Your task to perform on an android device: Install the Google app Image 0: 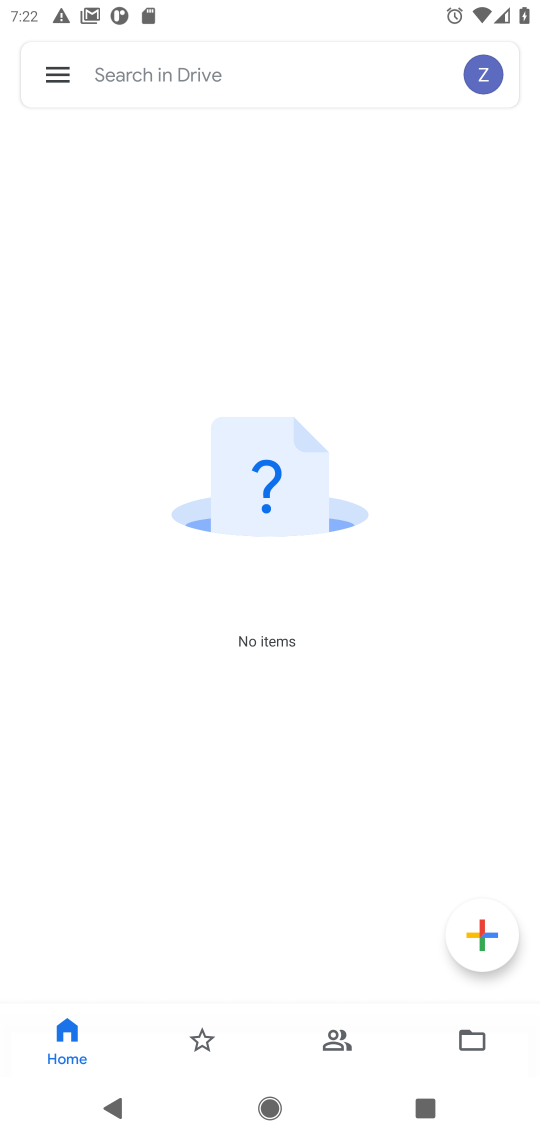
Step 0: press home button
Your task to perform on an android device: Install the Google app Image 1: 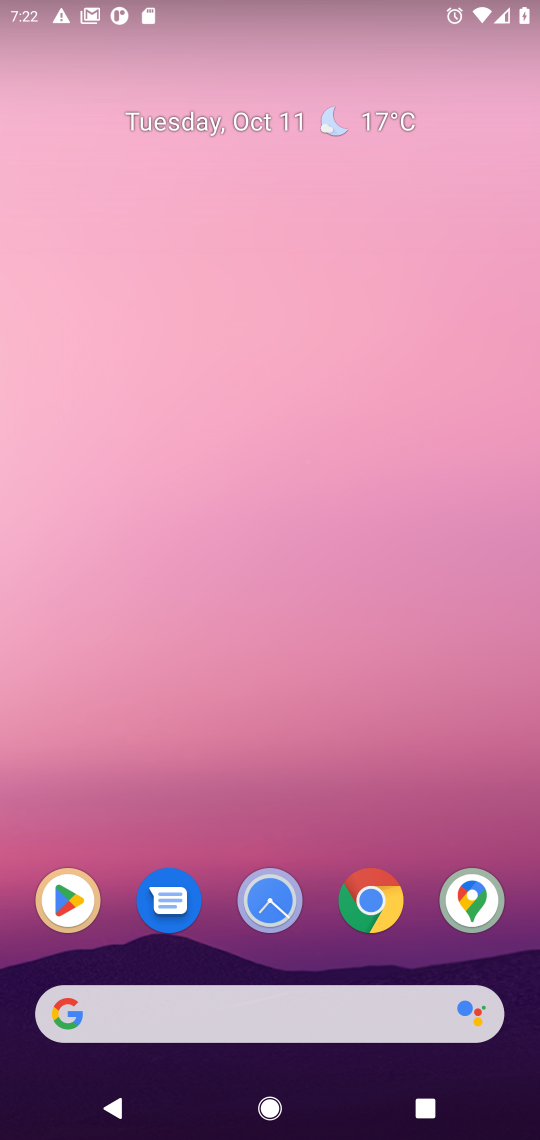
Step 1: drag from (232, 1018) to (383, 237)
Your task to perform on an android device: Install the Google app Image 2: 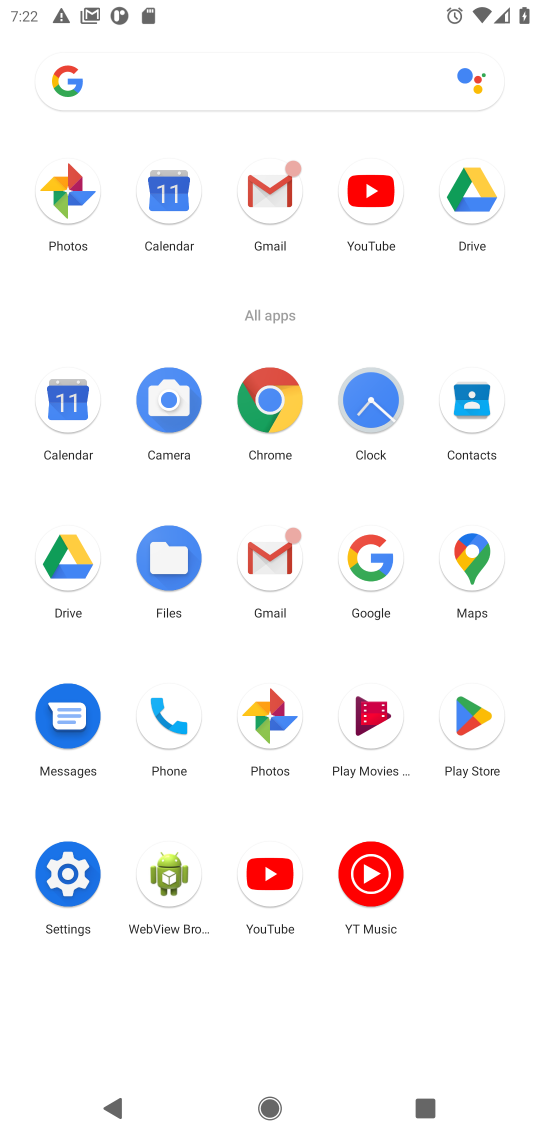
Step 2: click (474, 719)
Your task to perform on an android device: Install the Google app Image 3: 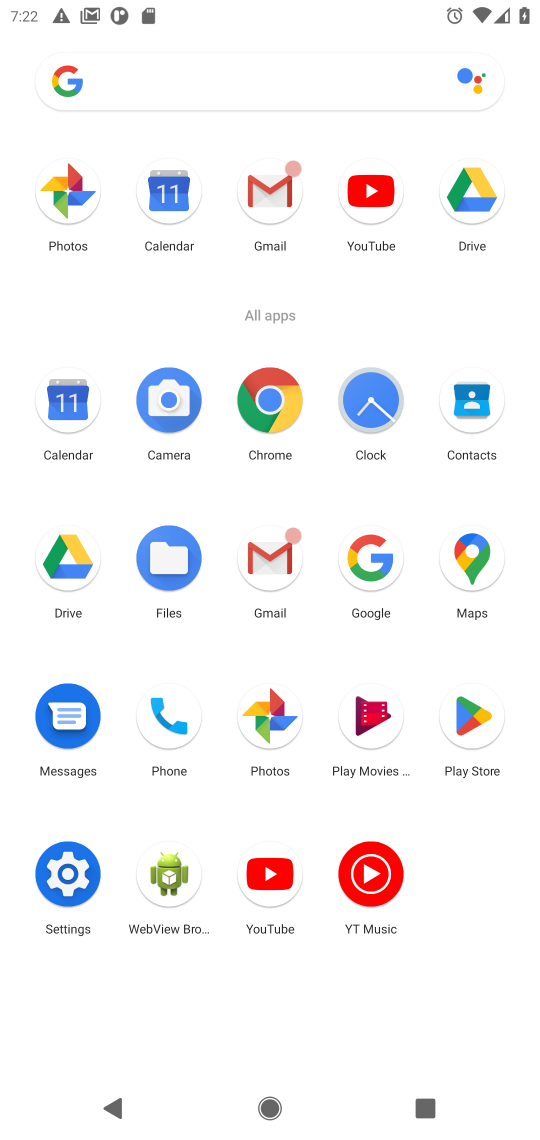
Step 3: click (467, 715)
Your task to perform on an android device: Install the Google app Image 4: 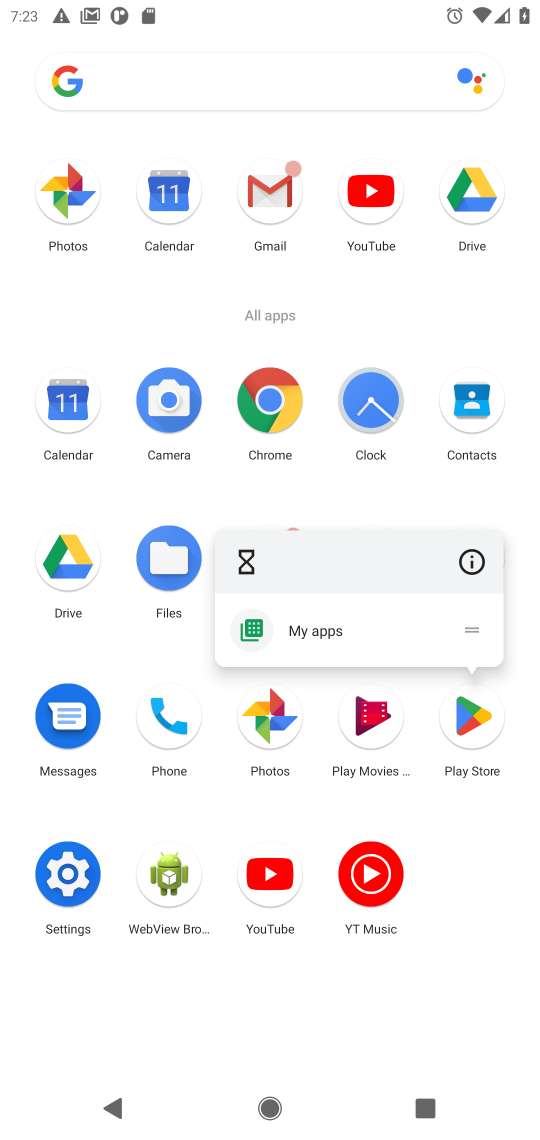
Step 4: click (468, 728)
Your task to perform on an android device: Install the Google app Image 5: 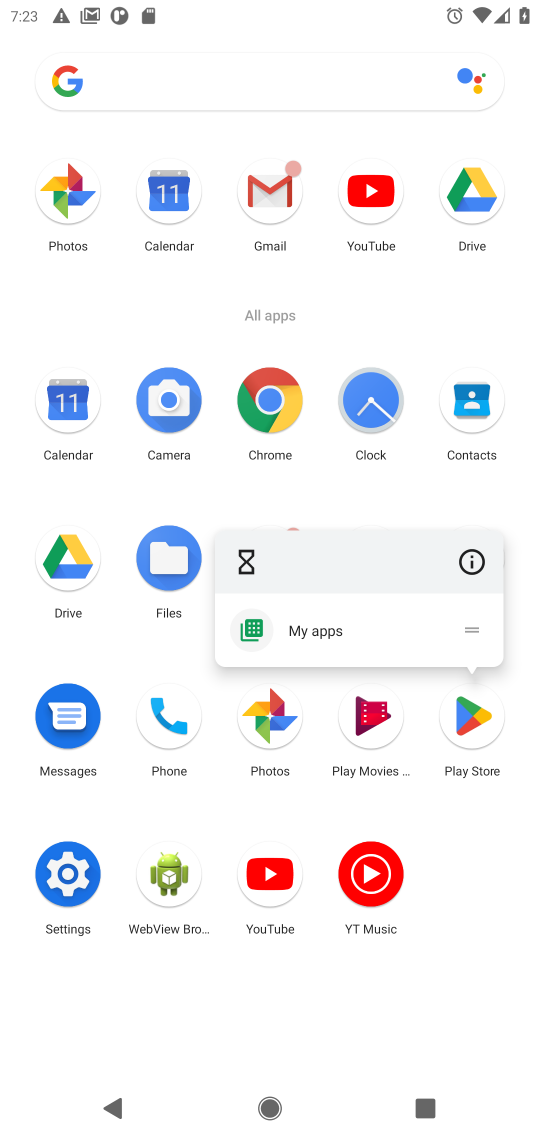
Step 5: task complete